Your task to perform on an android device: open app "File Manager" (install if not already installed) Image 0: 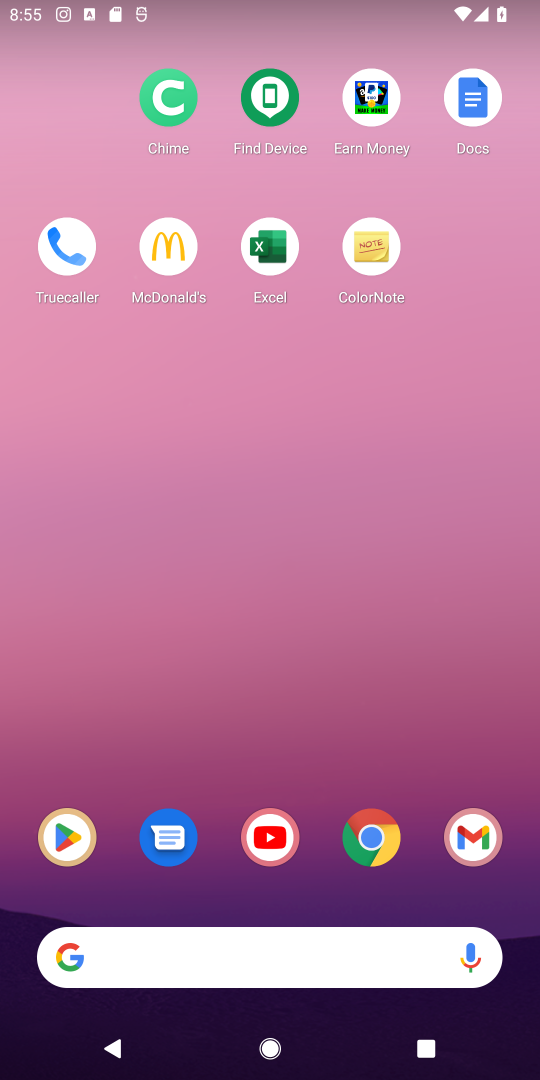
Step 0: click (65, 855)
Your task to perform on an android device: open app "File Manager" (install if not already installed) Image 1: 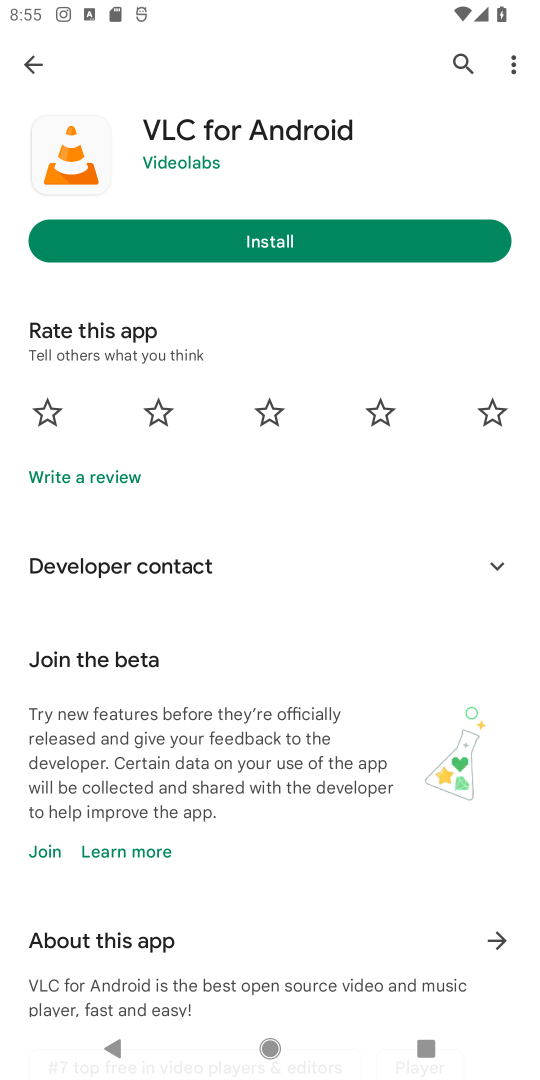
Step 1: click (455, 59)
Your task to perform on an android device: open app "File Manager" (install if not already installed) Image 2: 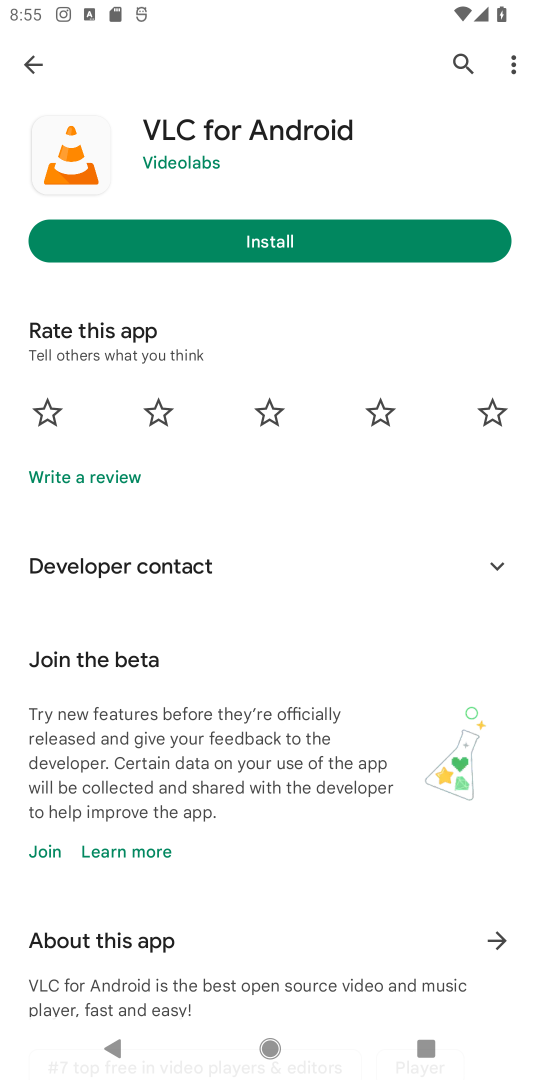
Step 2: click (459, 63)
Your task to perform on an android device: open app "File Manager" (install if not already installed) Image 3: 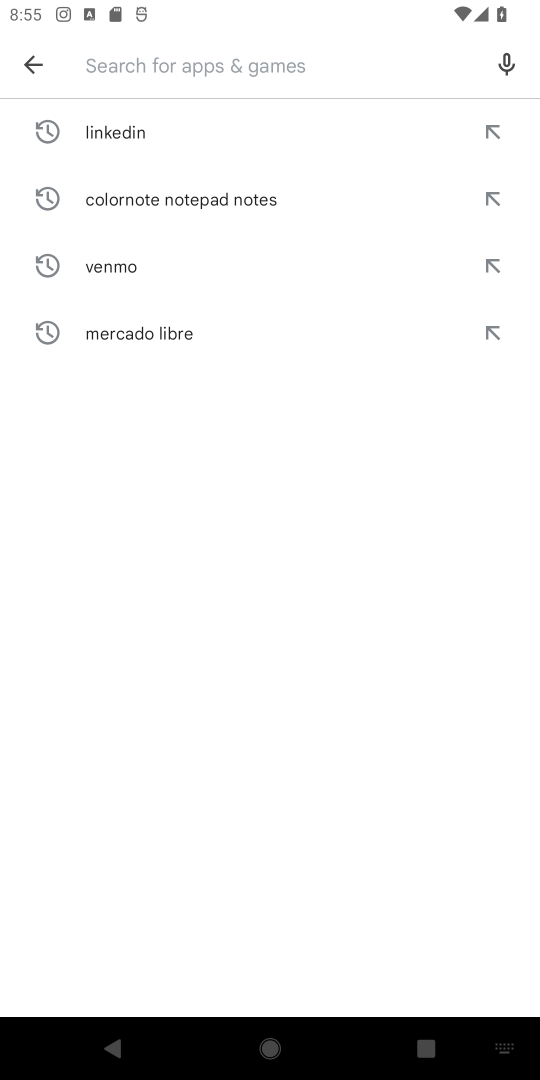
Step 3: type "File Manager"
Your task to perform on an android device: open app "File Manager" (install if not already installed) Image 4: 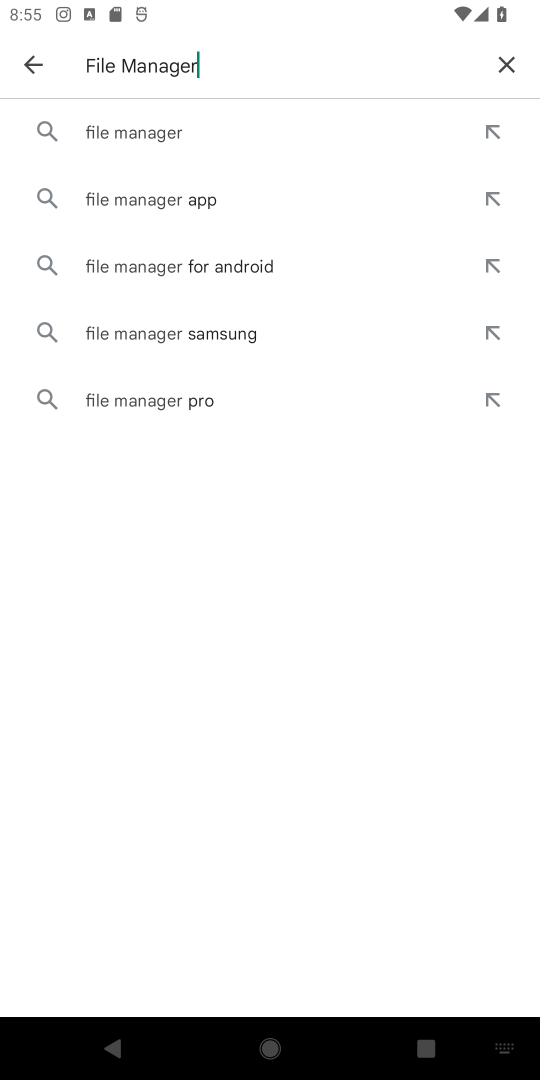
Step 4: click (99, 135)
Your task to perform on an android device: open app "File Manager" (install if not already installed) Image 5: 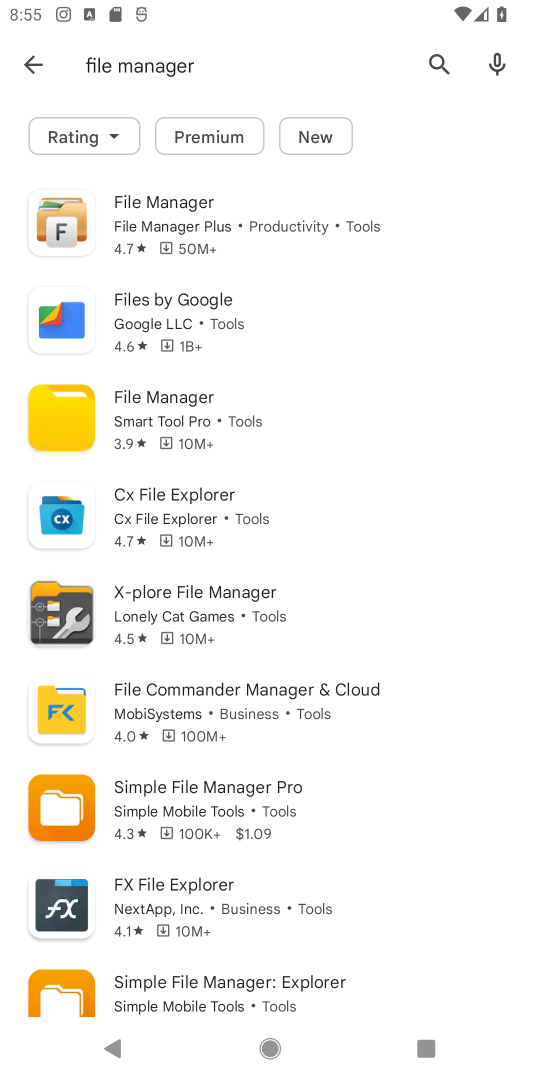
Step 5: click (145, 224)
Your task to perform on an android device: open app "File Manager" (install if not already installed) Image 6: 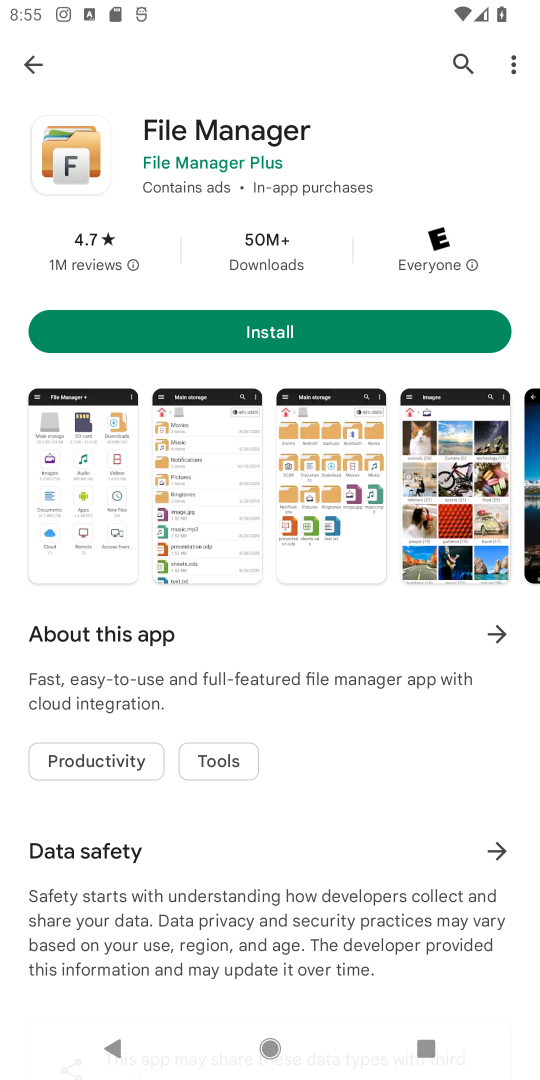
Step 6: click (220, 341)
Your task to perform on an android device: open app "File Manager" (install if not already installed) Image 7: 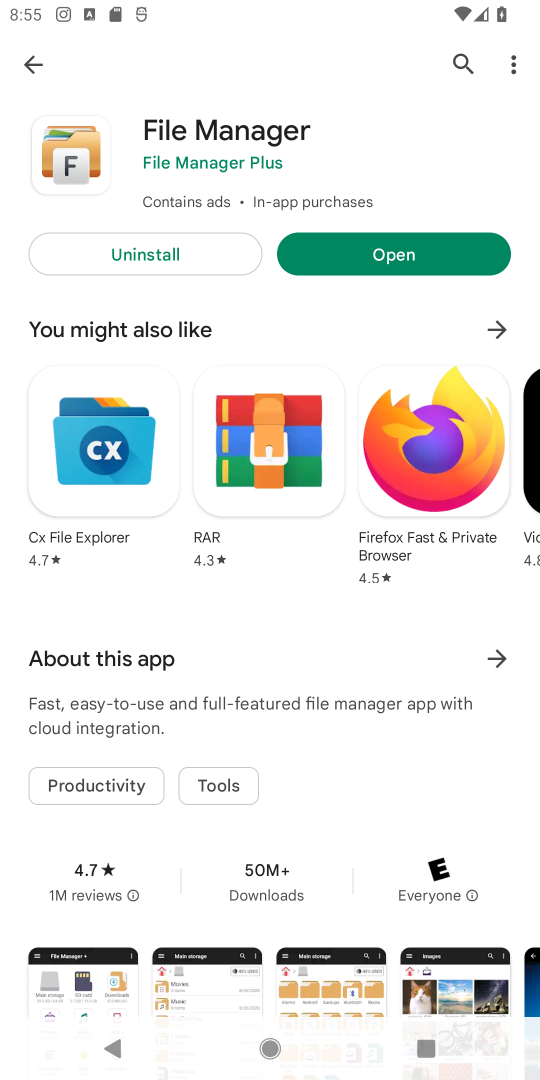
Step 7: click (385, 259)
Your task to perform on an android device: open app "File Manager" (install if not already installed) Image 8: 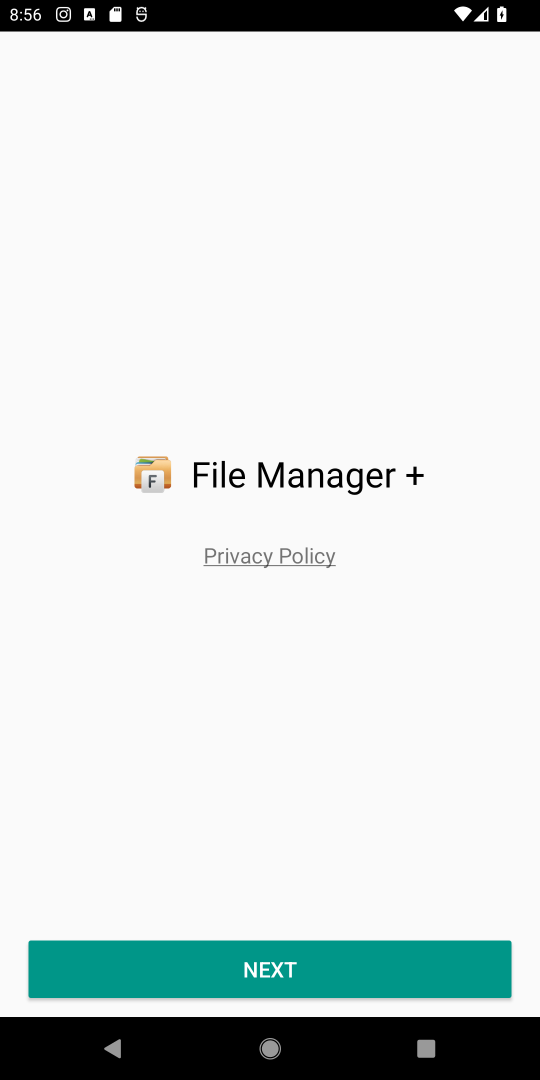
Step 8: task complete